Your task to perform on an android device: check data usage Image 0: 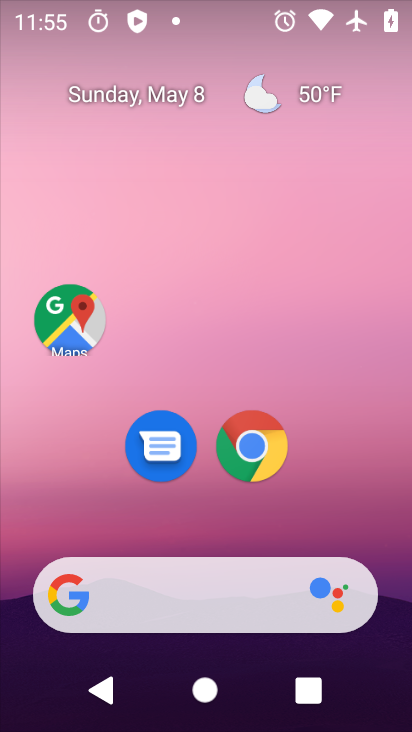
Step 0: drag from (317, 506) to (283, 83)
Your task to perform on an android device: check data usage Image 1: 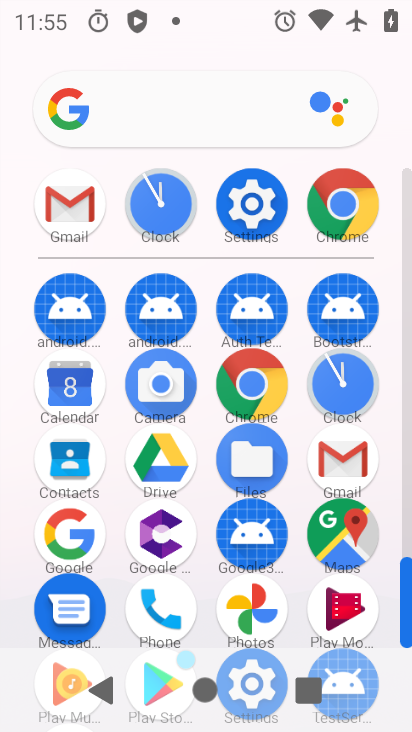
Step 1: click (251, 205)
Your task to perform on an android device: check data usage Image 2: 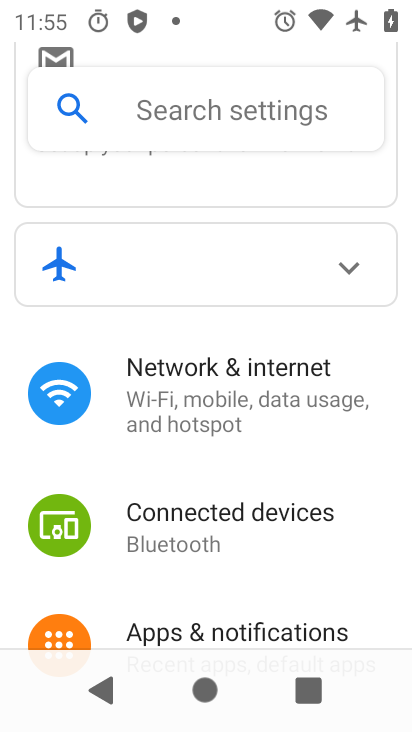
Step 2: click (207, 423)
Your task to perform on an android device: check data usage Image 3: 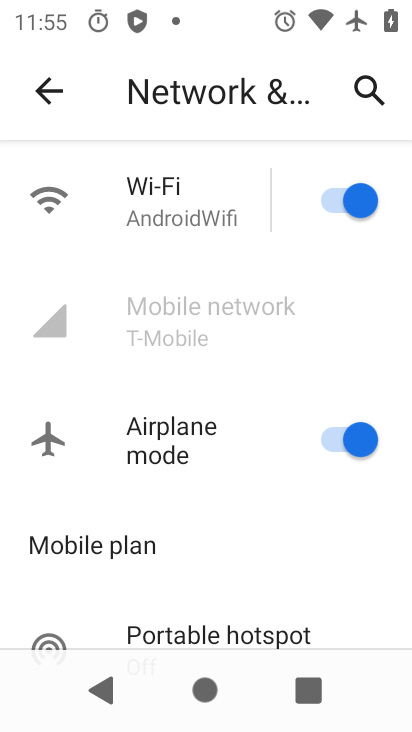
Step 3: click (183, 298)
Your task to perform on an android device: check data usage Image 4: 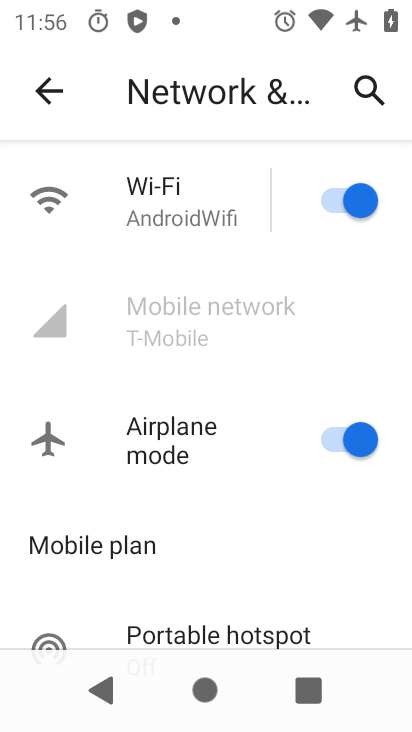
Step 4: click (76, 350)
Your task to perform on an android device: check data usage Image 5: 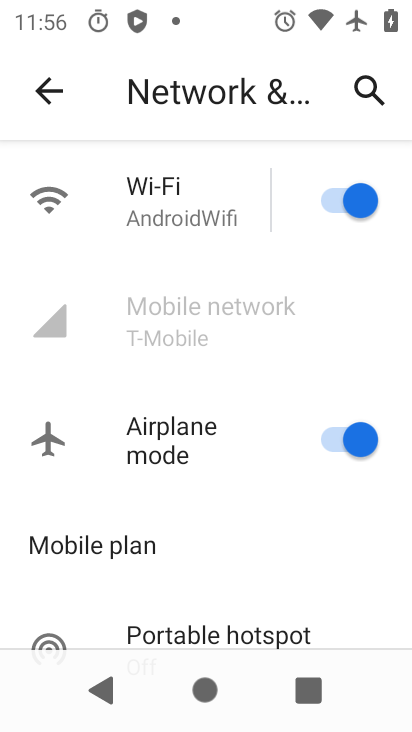
Step 5: task complete